Your task to perform on an android device: see creations saved in the google photos Image 0: 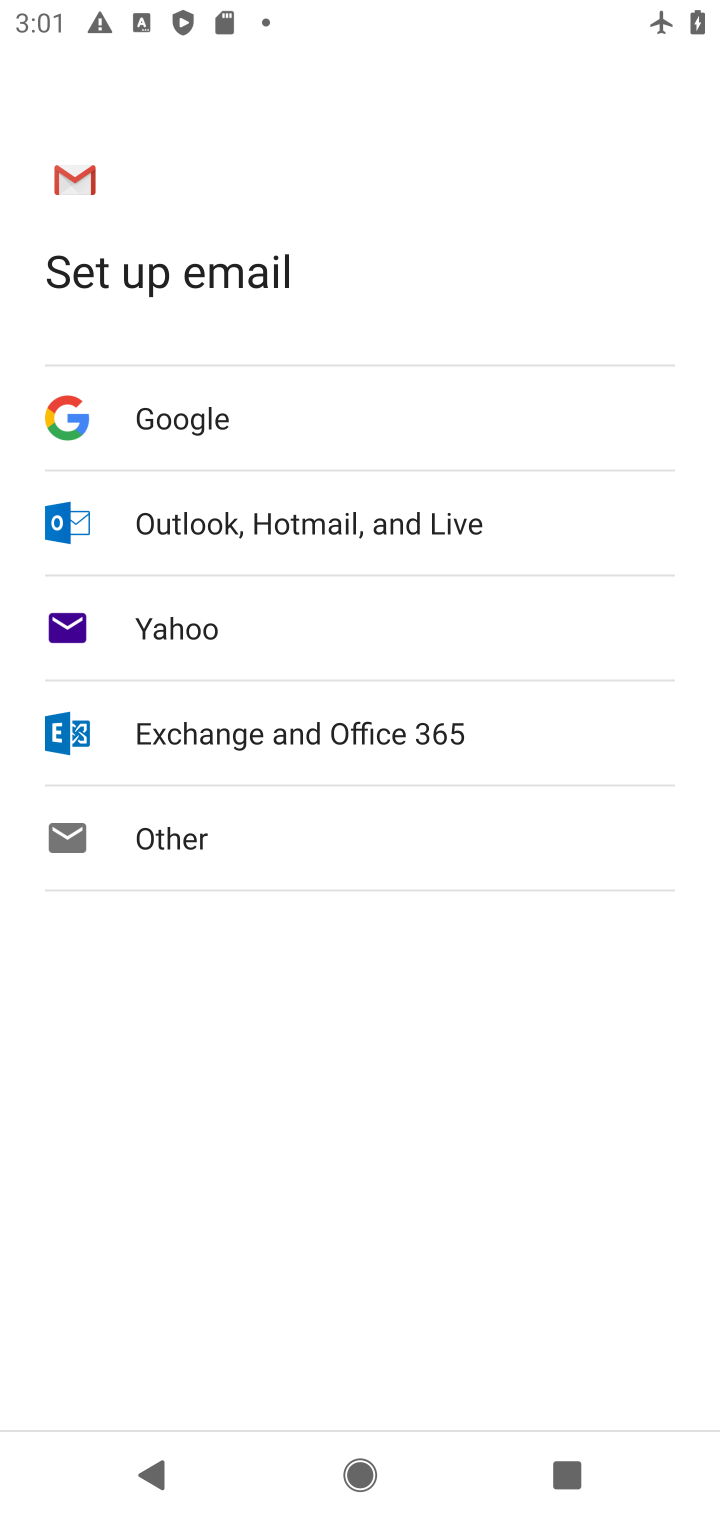
Step 0: press home button
Your task to perform on an android device: see creations saved in the google photos Image 1: 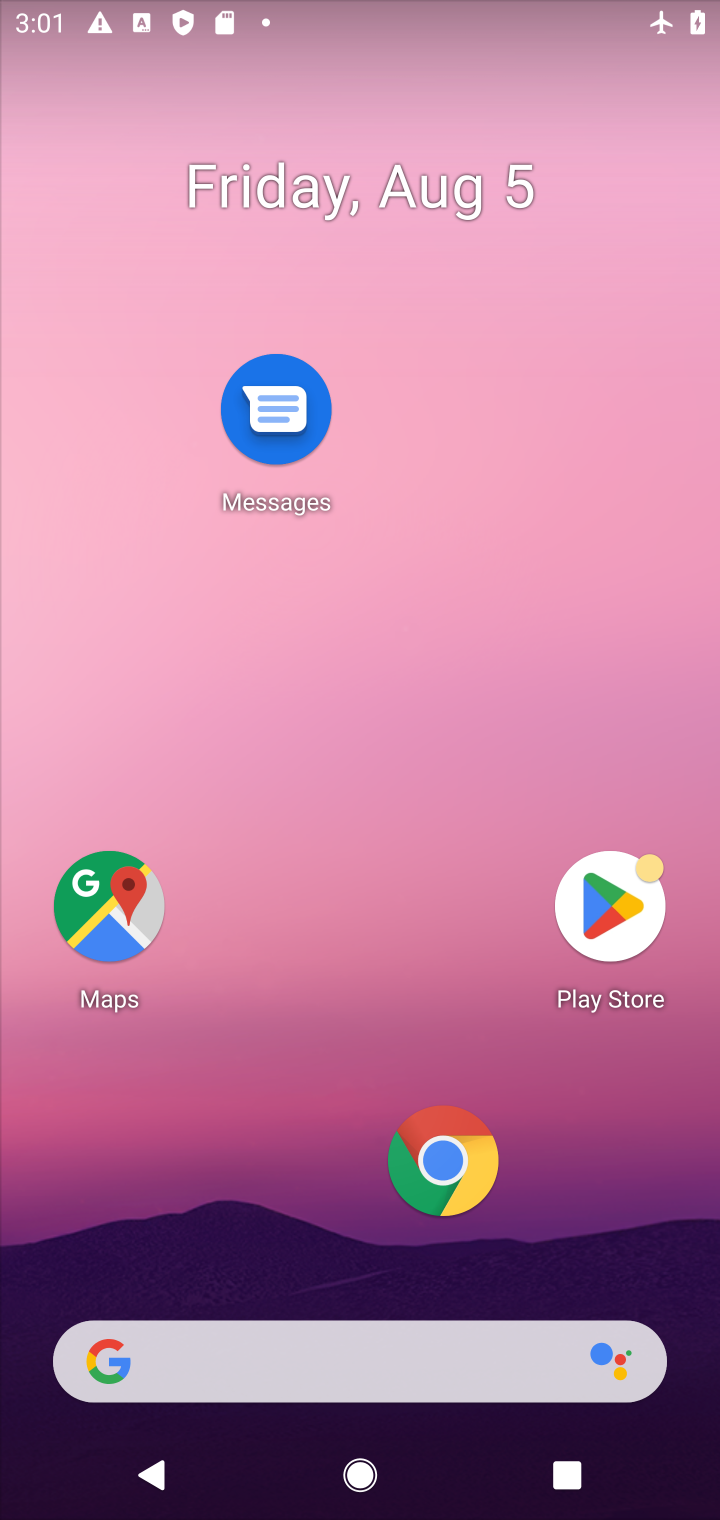
Step 1: drag from (348, 1006) to (446, 300)
Your task to perform on an android device: see creations saved in the google photos Image 2: 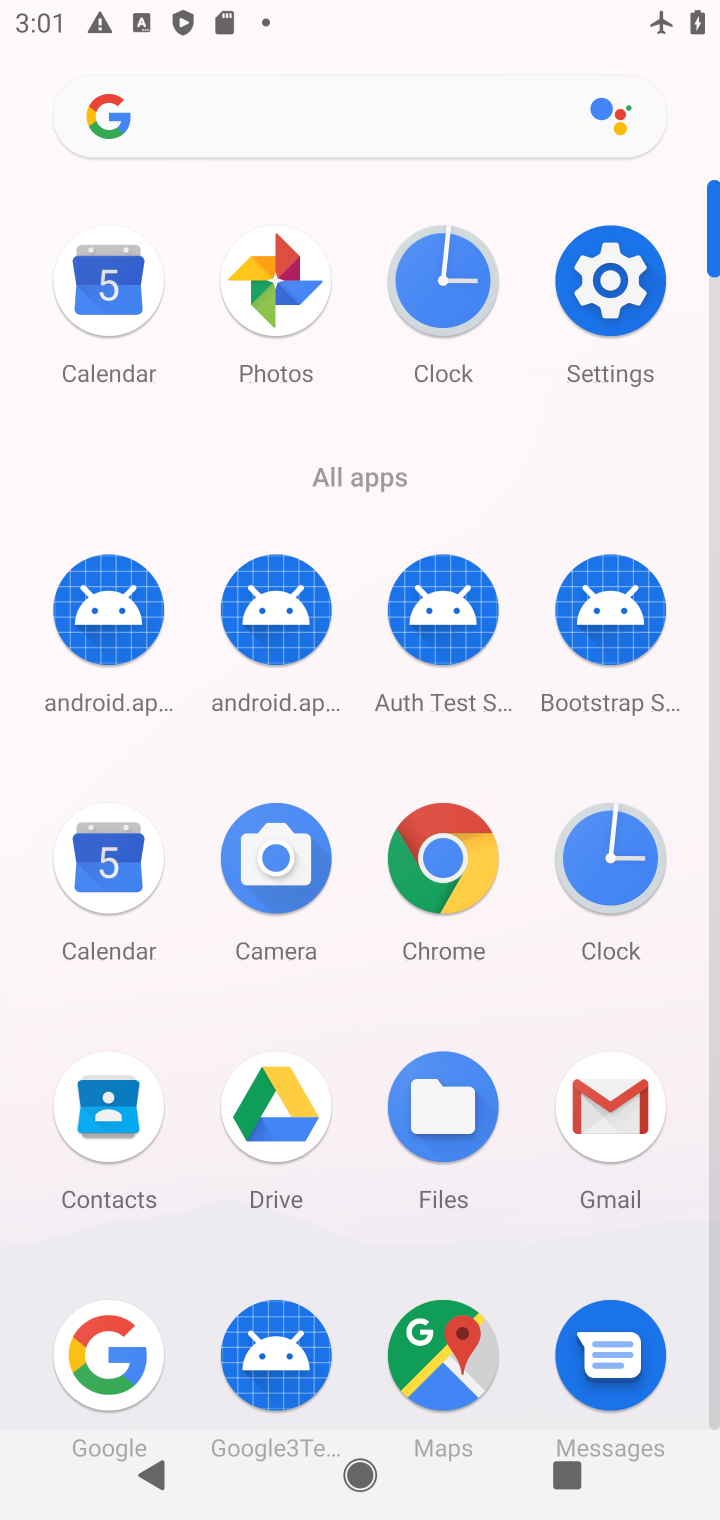
Step 2: drag from (359, 967) to (362, 317)
Your task to perform on an android device: see creations saved in the google photos Image 3: 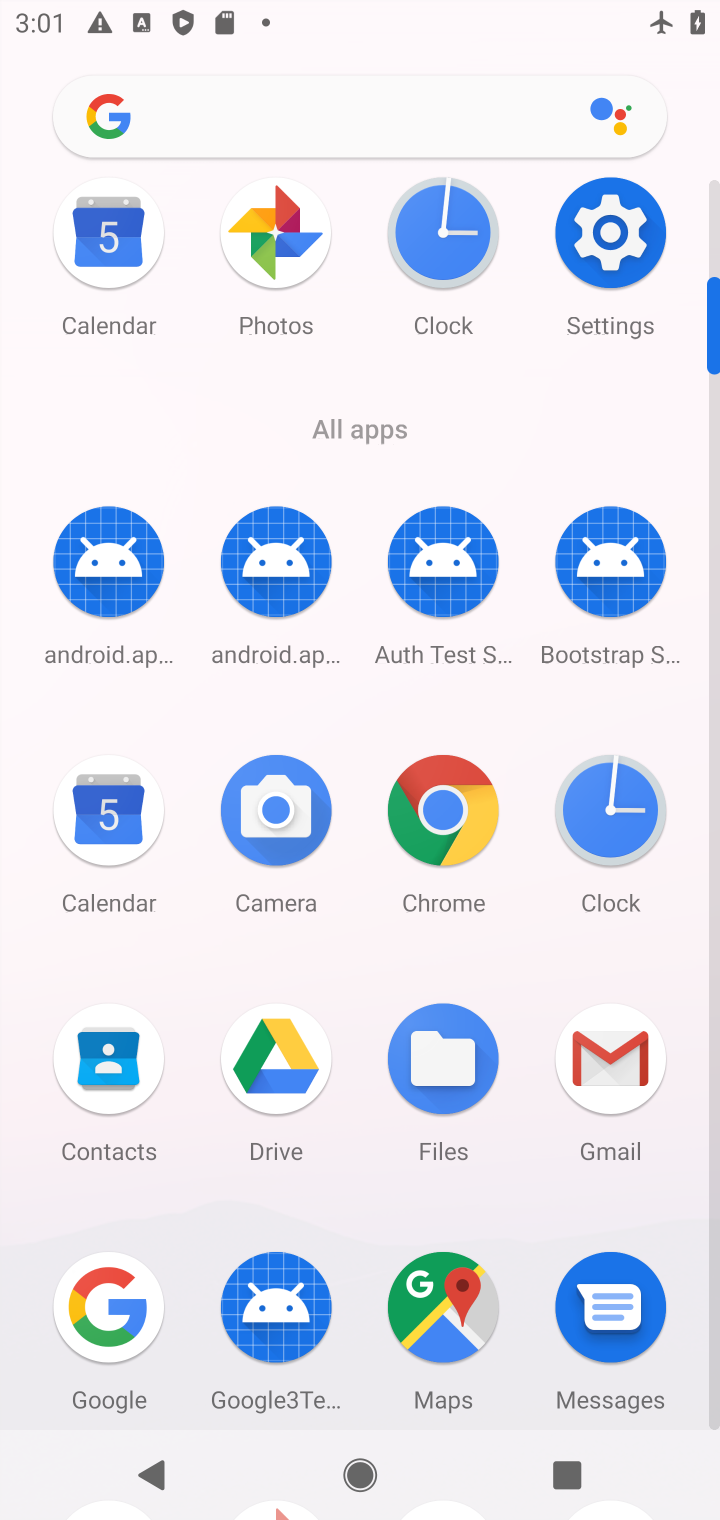
Step 3: click (283, 249)
Your task to perform on an android device: see creations saved in the google photos Image 4: 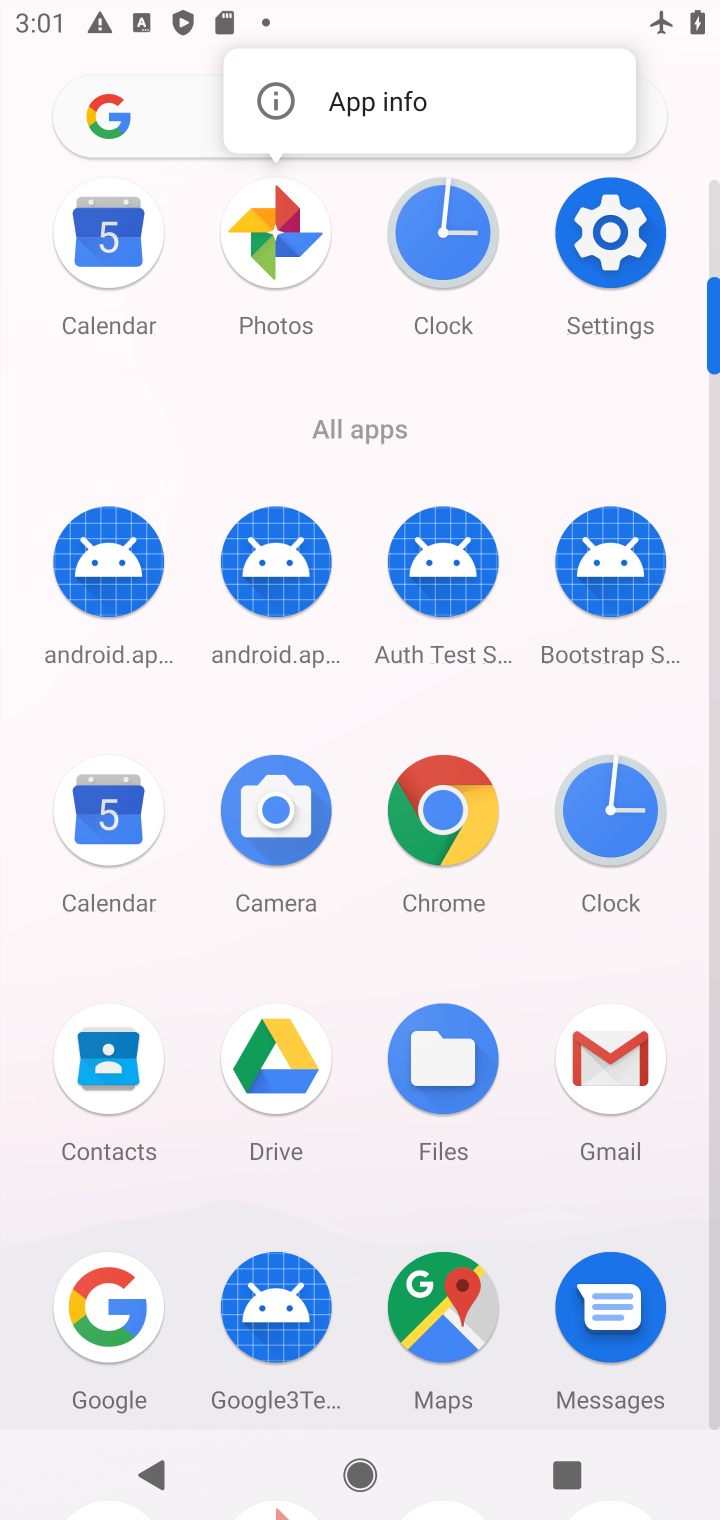
Step 4: click (283, 249)
Your task to perform on an android device: see creations saved in the google photos Image 5: 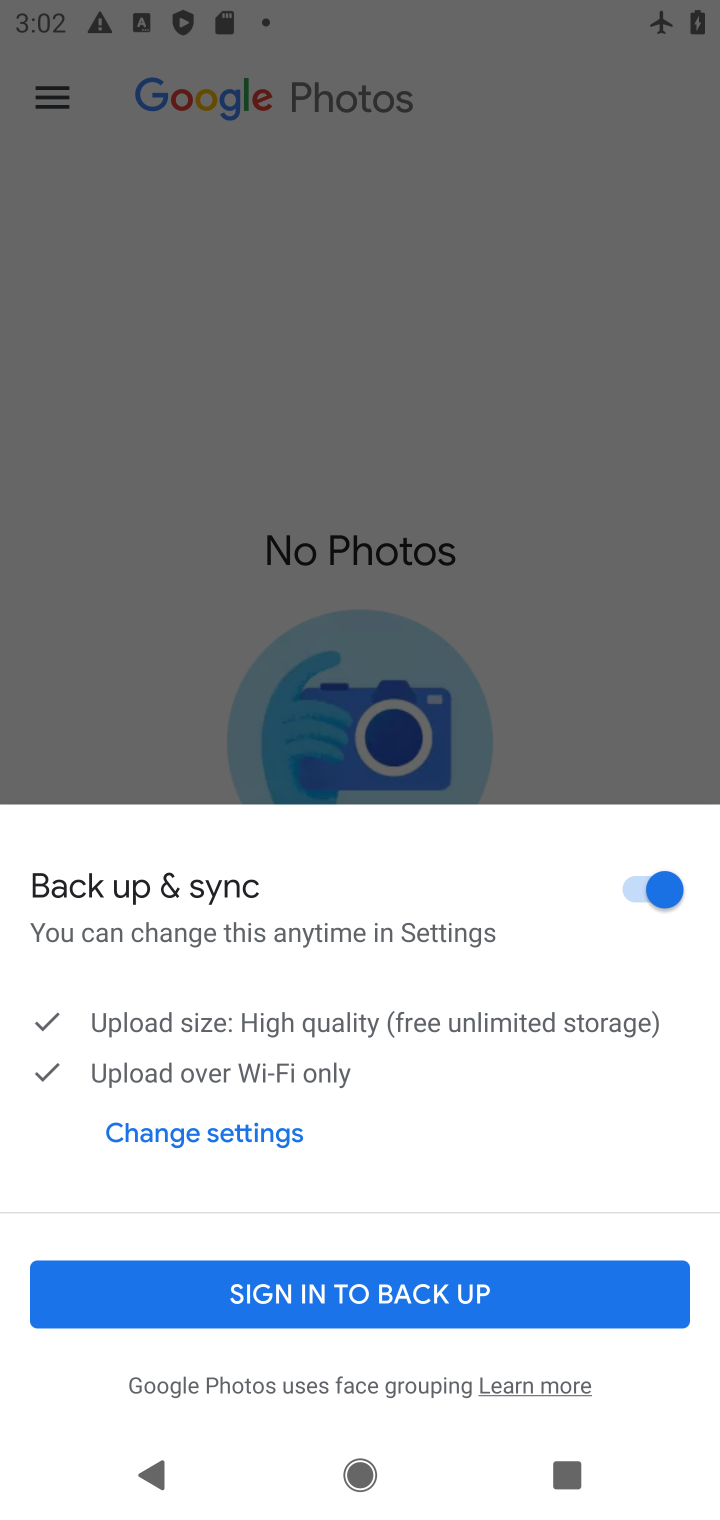
Step 5: click (452, 386)
Your task to perform on an android device: see creations saved in the google photos Image 6: 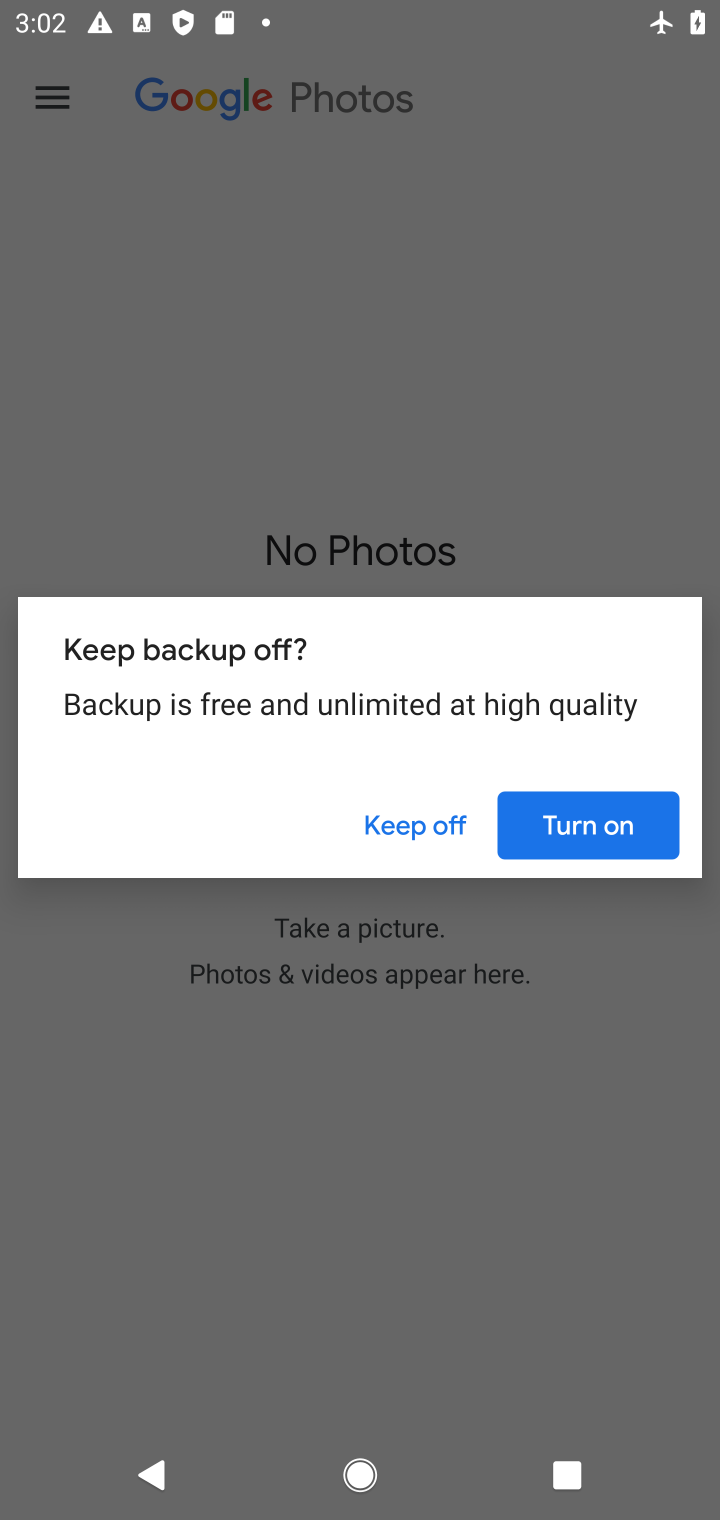
Step 6: click (658, 828)
Your task to perform on an android device: see creations saved in the google photos Image 7: 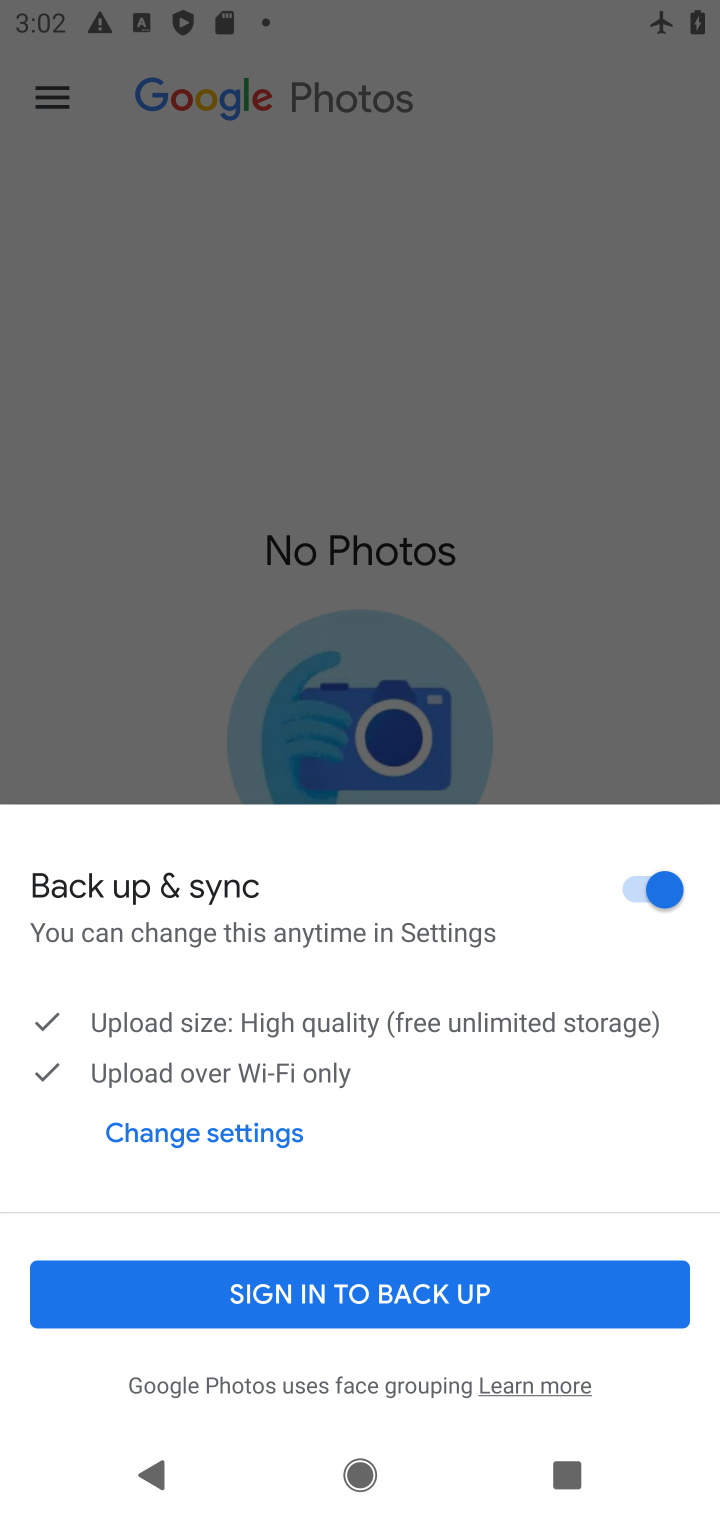
Step 7: click (406, 1272)
Your task to perform on an android device: see creations saved in the google photos Image 8: 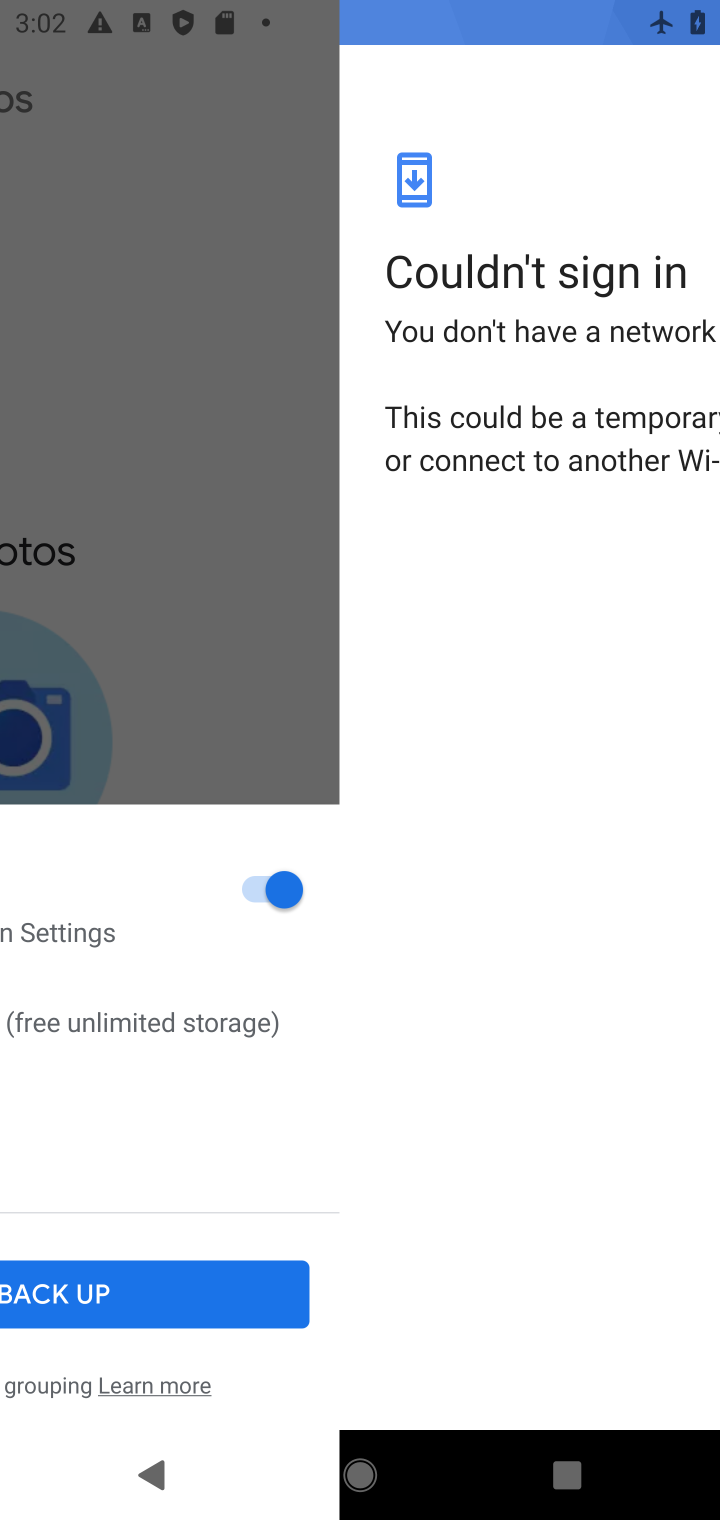
Step 8: click (310, 101)
Your task to perform on an android device: see creations saved in the google photos Image 9: 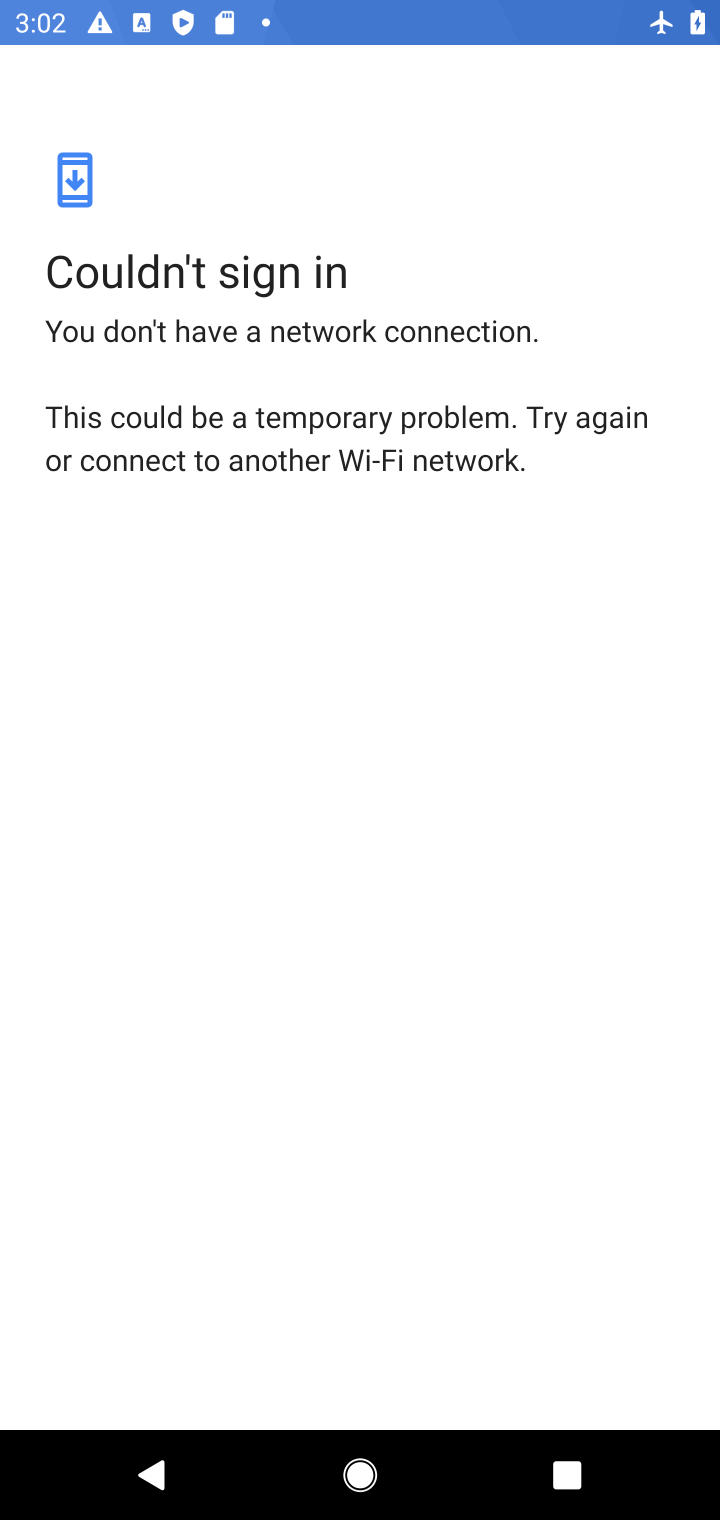
Step 9: press back button
Your task to perform on an android device: see creations saved in the google photos Image 10: 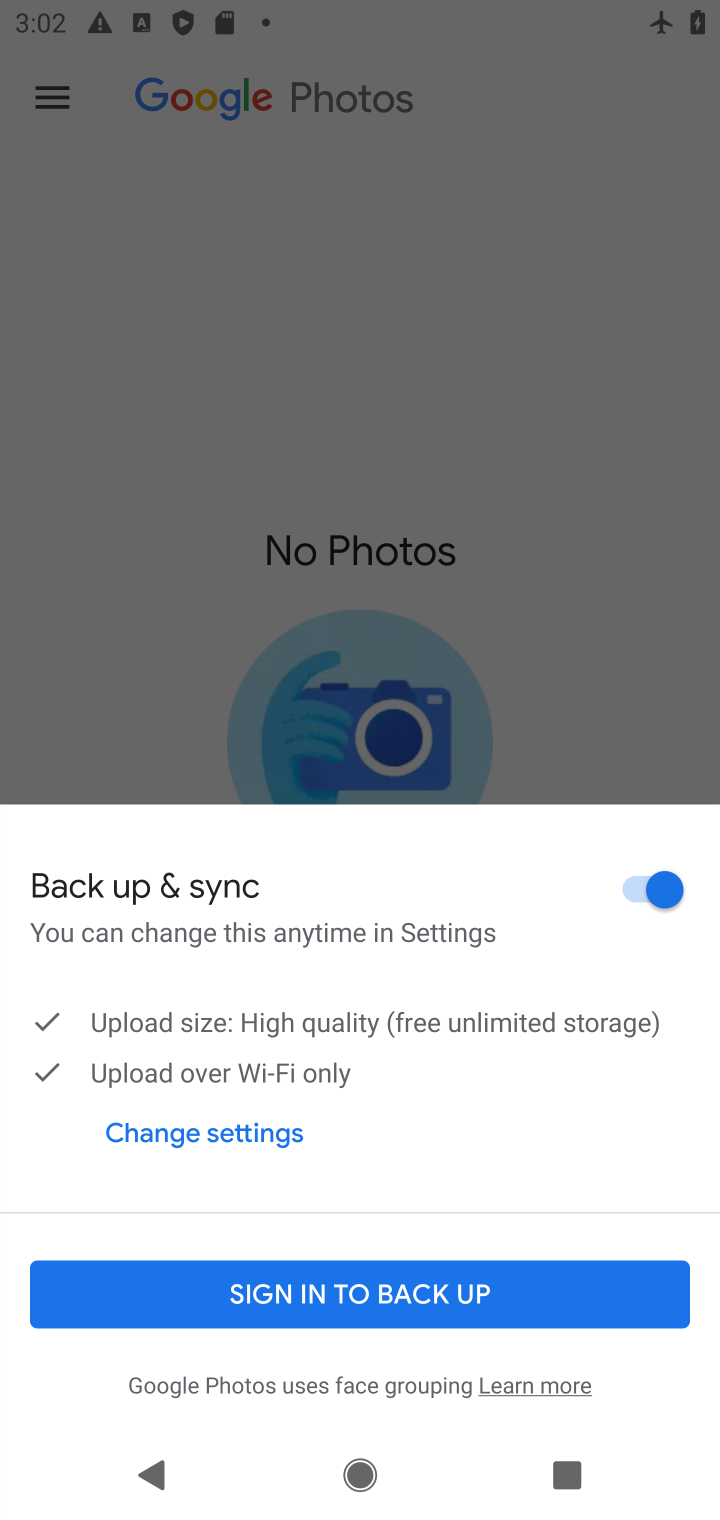
Step 10: click (161, 396)
Your task to perform on an android device: see creations saved in the google photos Image 11: 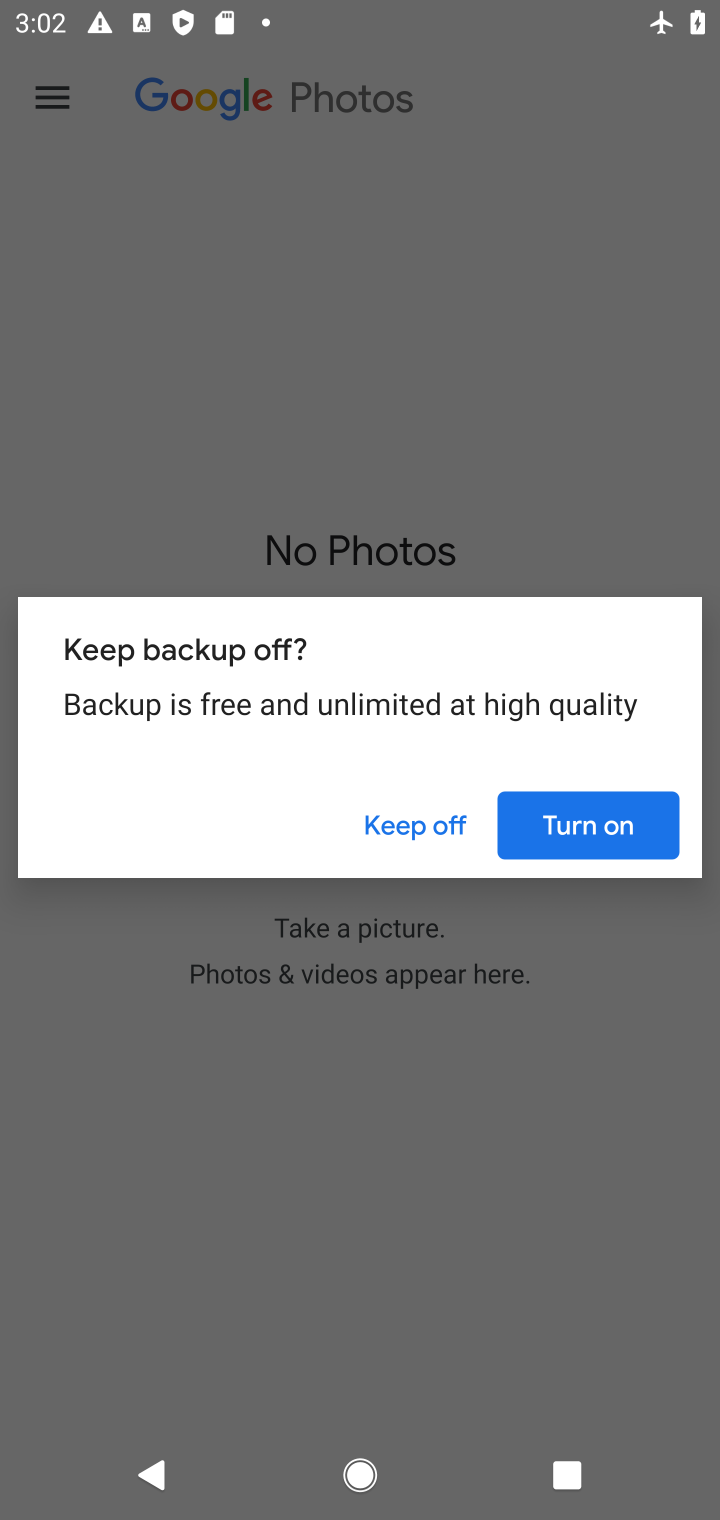
Step 11: click (536, 805)
Your task to perform on an android device: see creations saved in the google photos Image 12: 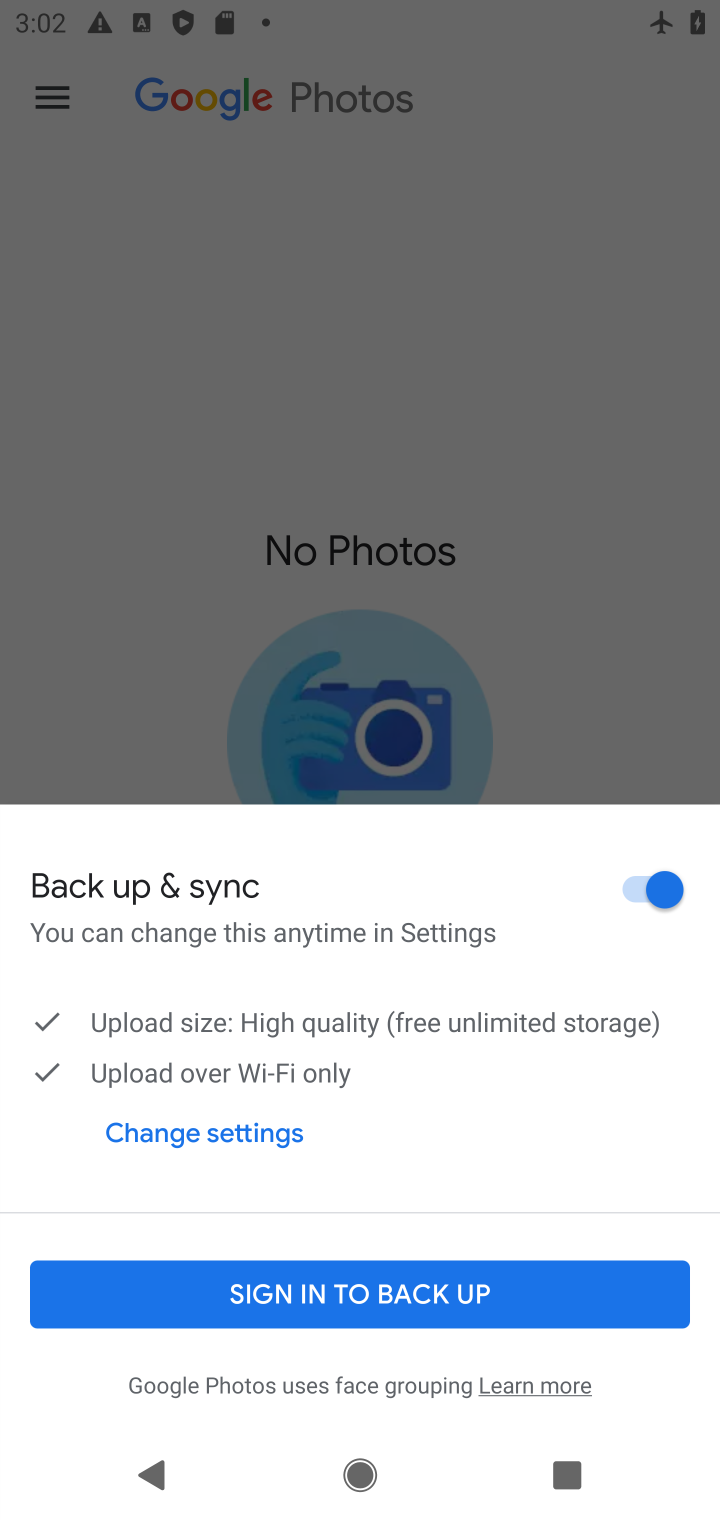
Step 12: click (382, 527)
Your task to perform on an android device: see creations saved in the google photos Image 13: 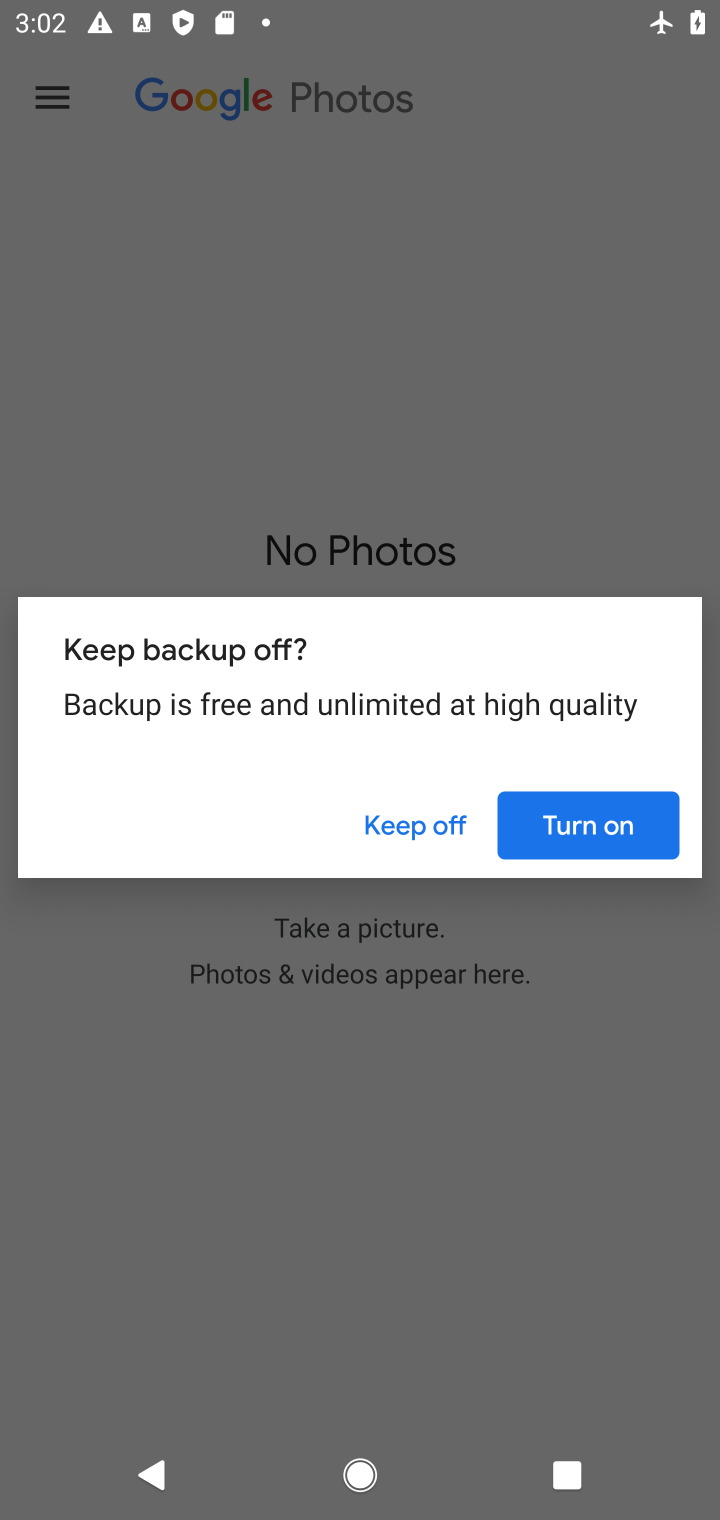
Step 13: click (417, 831)
Your task to perform on an android device: see creations saved in the google photos Image 14: 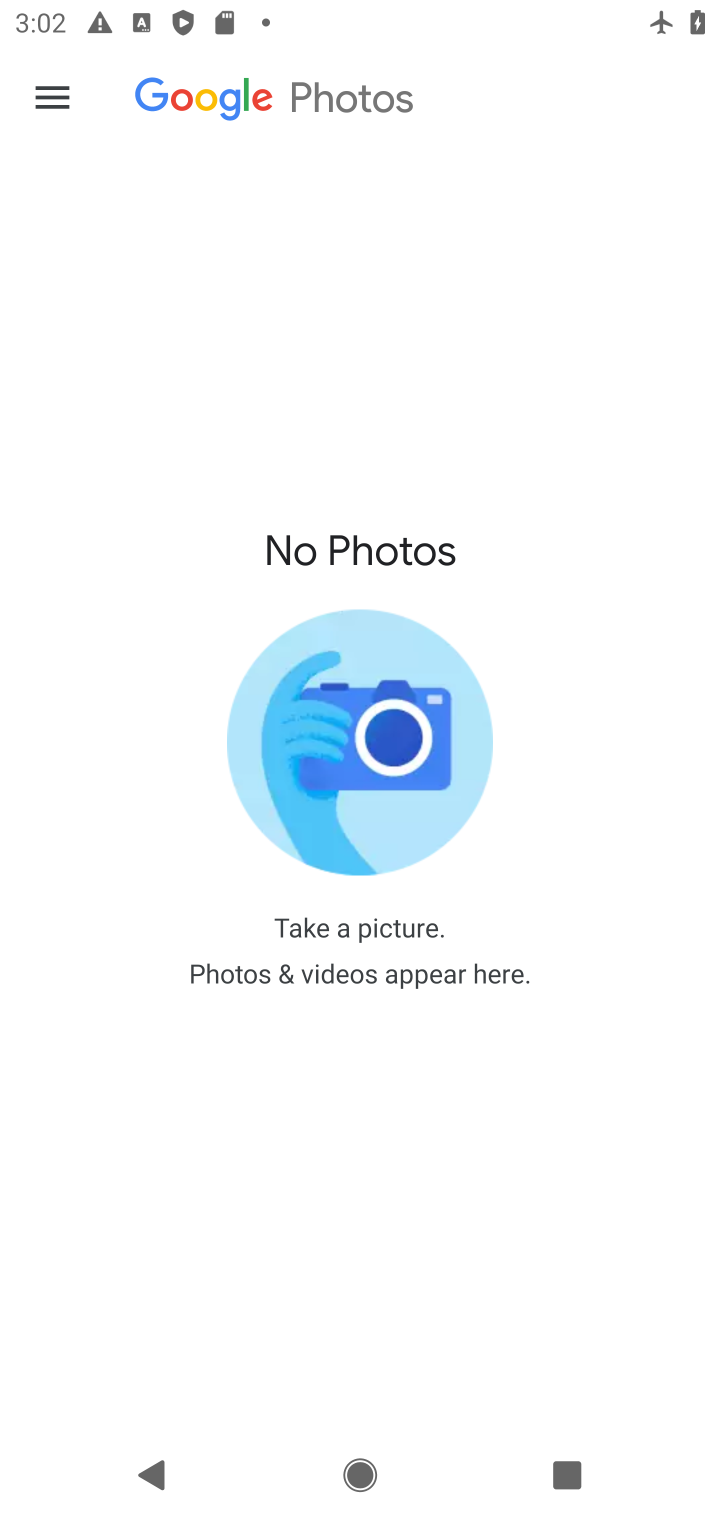
Step 14: click (255, 100)
Your task to perform on an android device: see creations saved in the google photos Image 15: 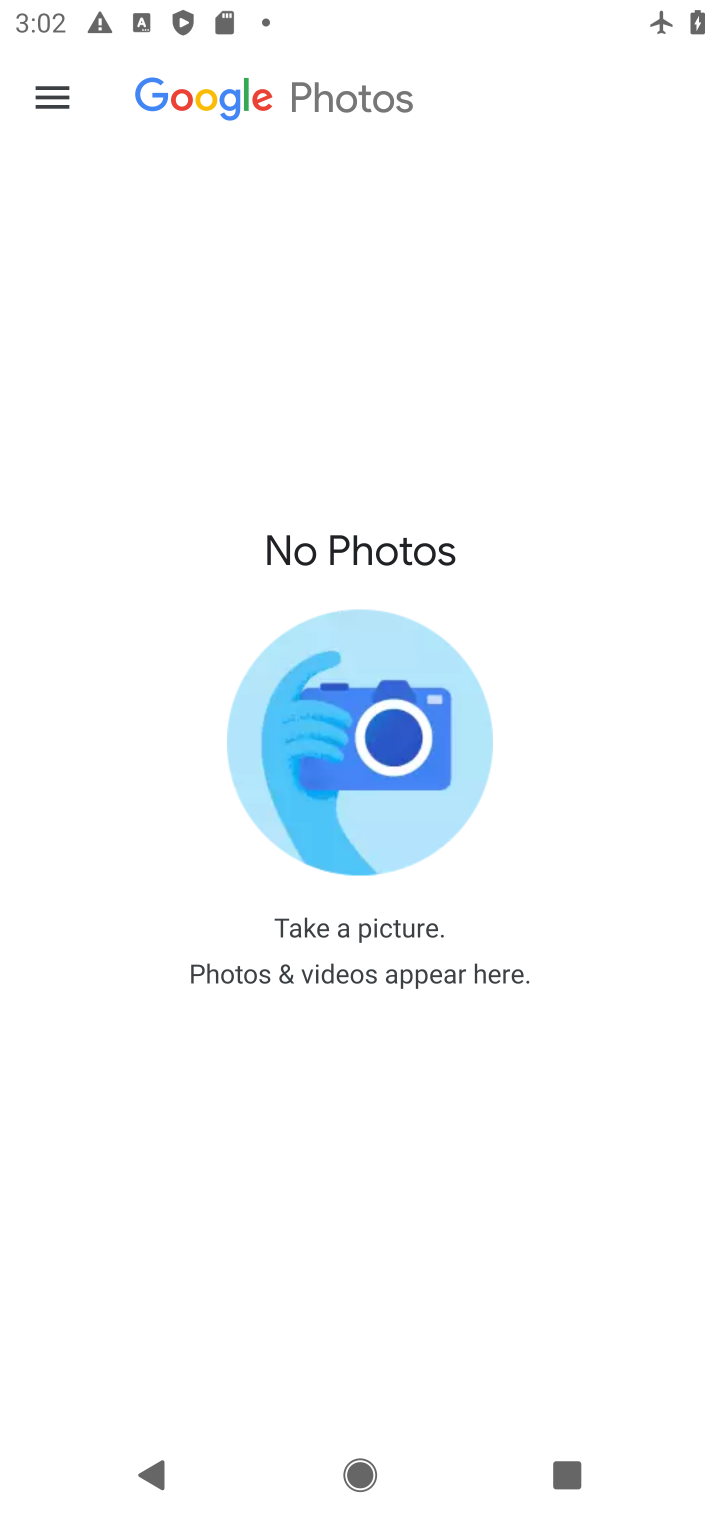
Step 15: click (255, 100)
Your task to perform on an android device: see creations saved in the google photos Image 16: 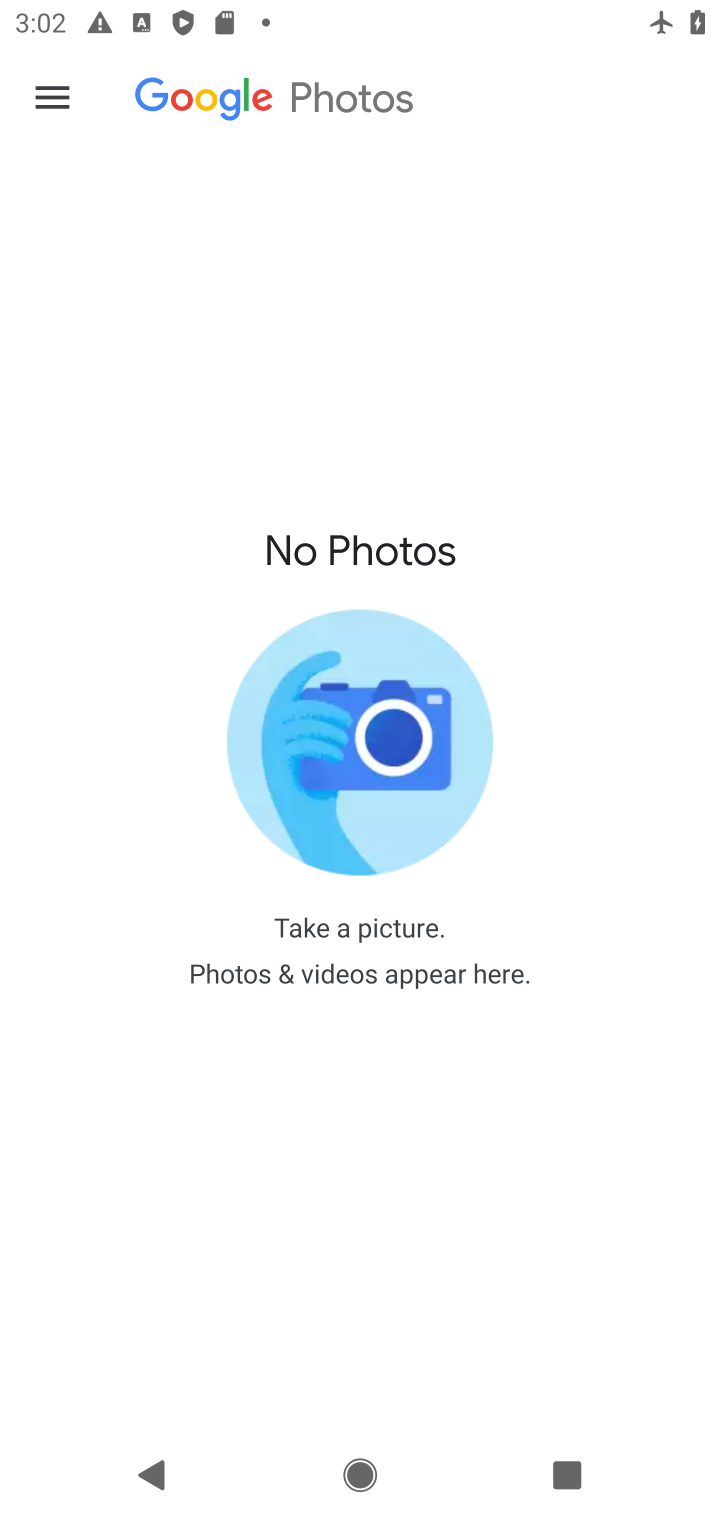
Step 16: click (53, 92)
Your task to perform on an android device: see creations saved in the google photos Image 17: 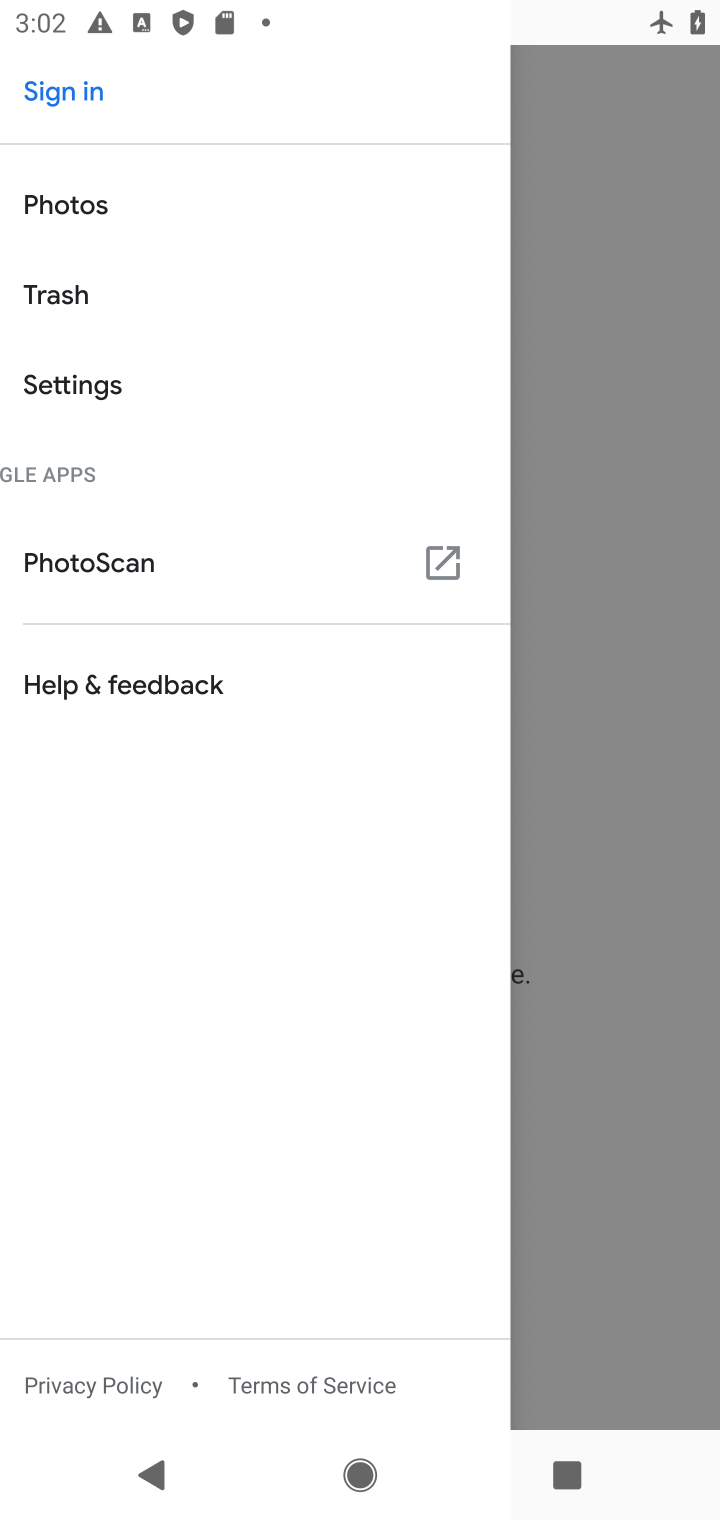
Step 17: task complete